Your task to perform on an android device: check battery use Image 0: 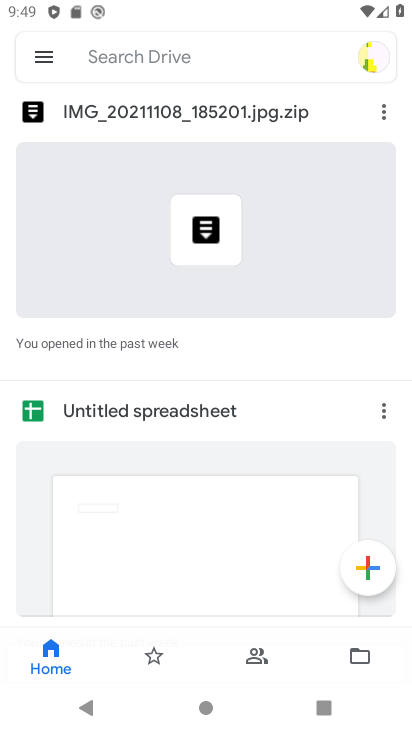
Step 0: press home button
Your task to perform on an android device: check battery use Image 1: 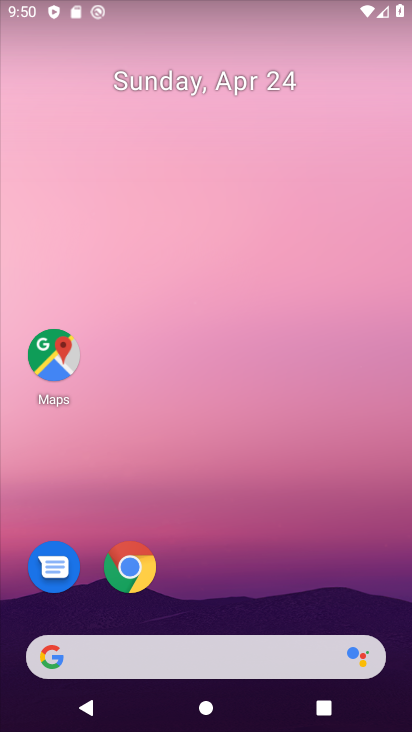
Step 1: drag from (41, 464) to (120, 328)
Your task to perform on an android device: check battery use Image 2: 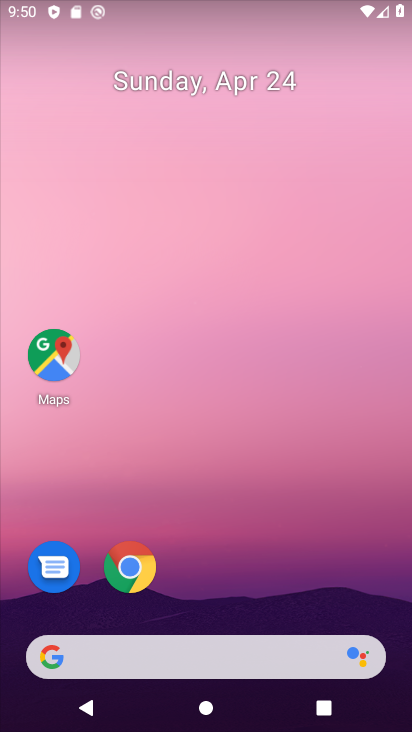
Step 2: drag from (84, 506) to (140, 388)
Your task to perform on an android device: check battery use Image 3: 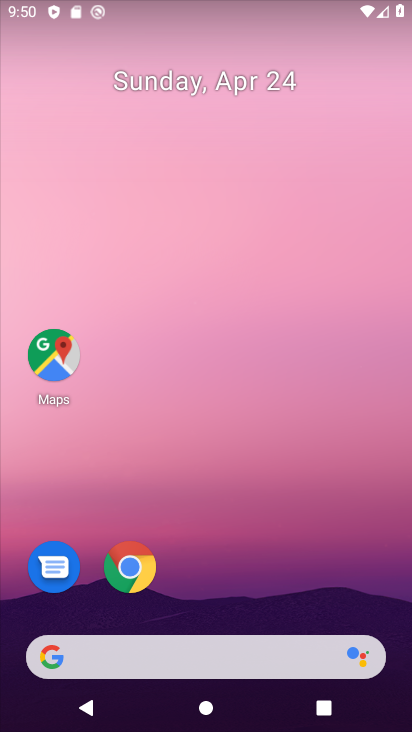
Step 3: drag from (98, 509) to (187, 324)
Your task to perform on an android device: check battery use Image 4: 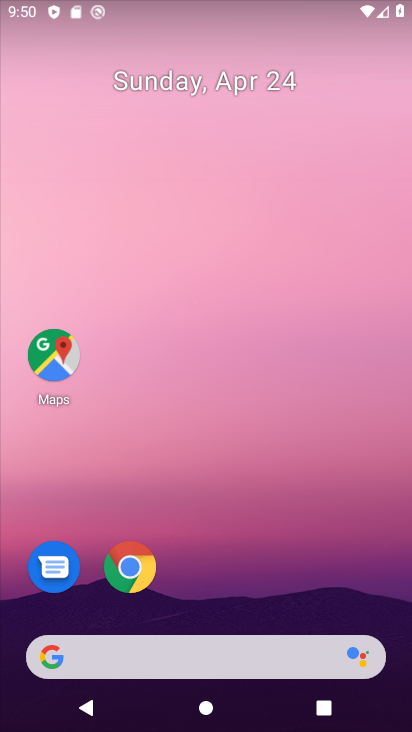
Step 4: drag from (14, 602) to (126, 401)
Your task to perform on an android device: check battery use Image 5: 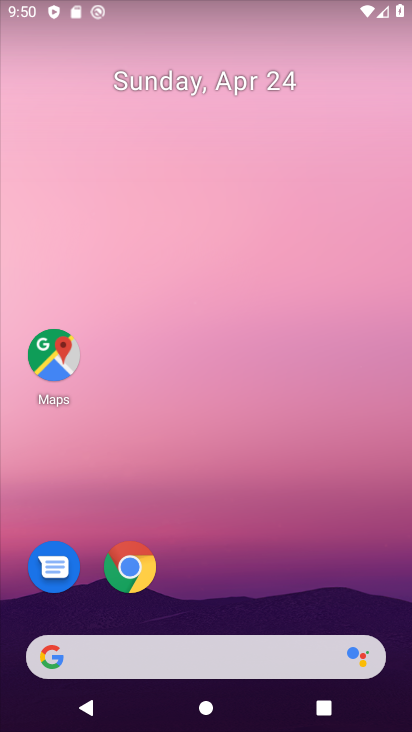
Step 5: drag from (17, 593) to (161, 334)
Your task to perform on an android device: check battery use Image 6: 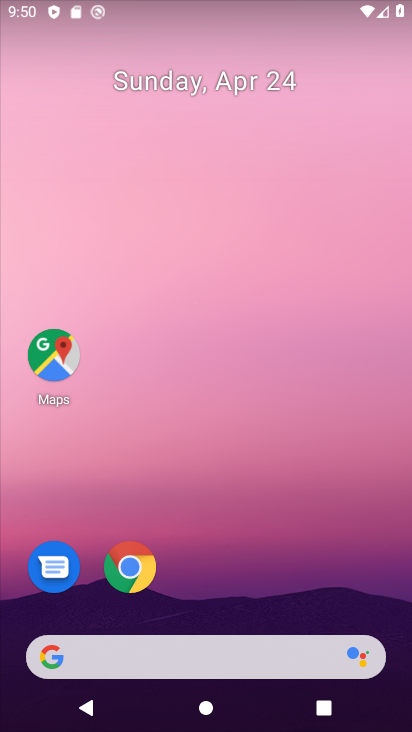
Step 6: drag from (114, 483) to (259, 186)
Your task to perform on an android device: check battery use Image 7: 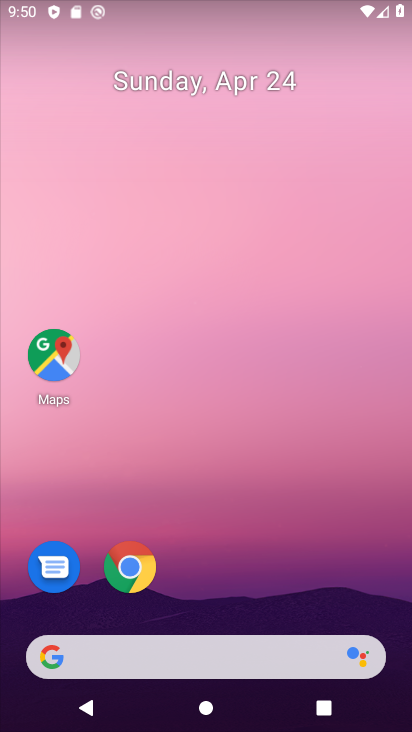
Step 7: drag from (37, 544) to (226, 146)
Your task to perform on an android device: check battery use Image 8: 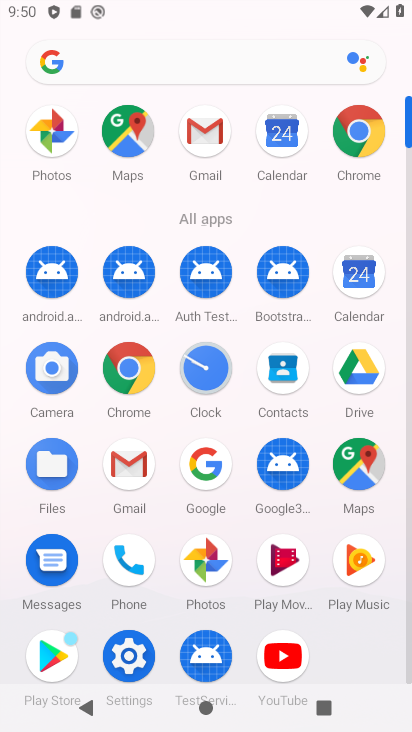
Step 8: click (133, 659)
Your task to perform on an android device: check battery use Image 9: 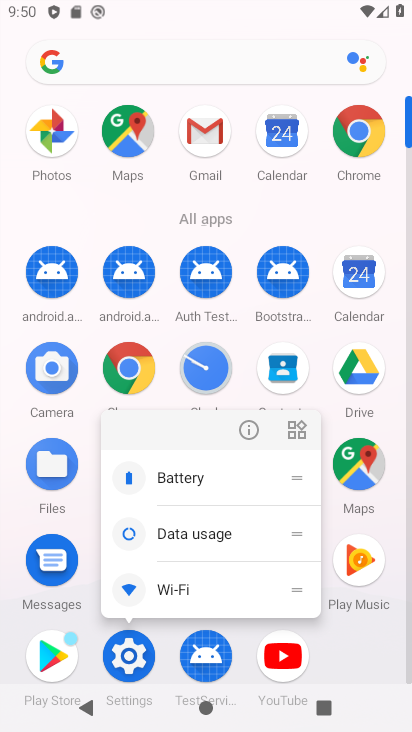
Step 9: click (207, 475)
Your task to perform on an android device: check battery use Image 10: 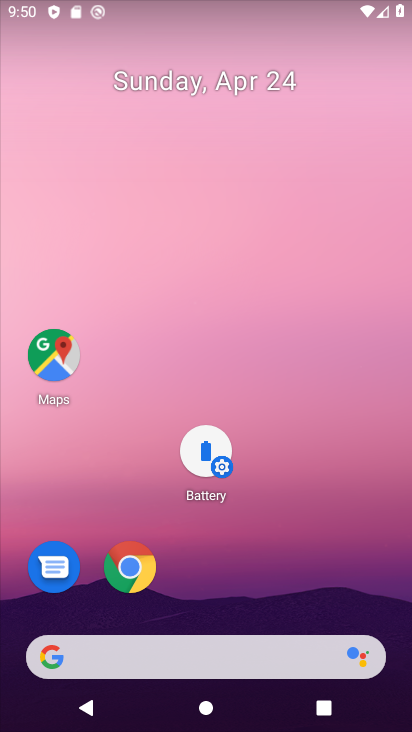
Step 10: click (215, 467)
Your task to perform on an android device: check battery use Image 11: 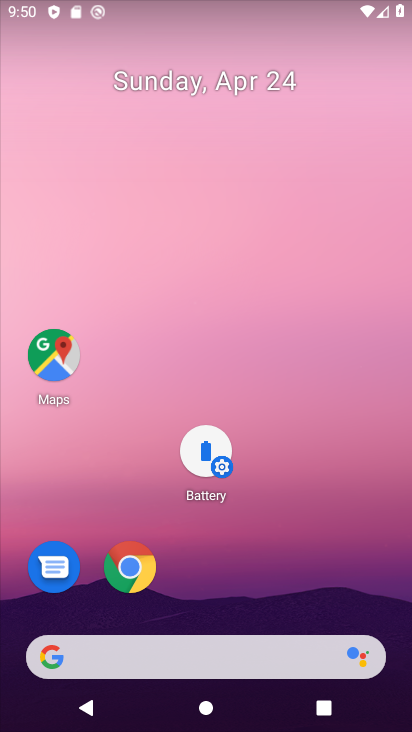
Step 11: click (203, 452)
Your task to perform on an android device: check battery use Image 12: 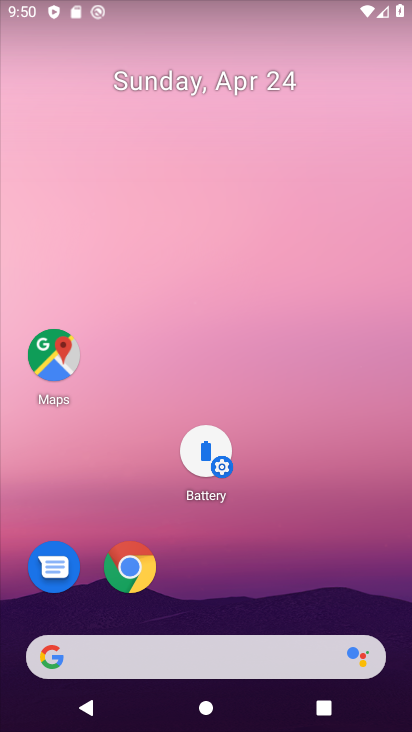
Step 12: click (202, 451)
Your task to perform on an android device: check battery use Image 13: 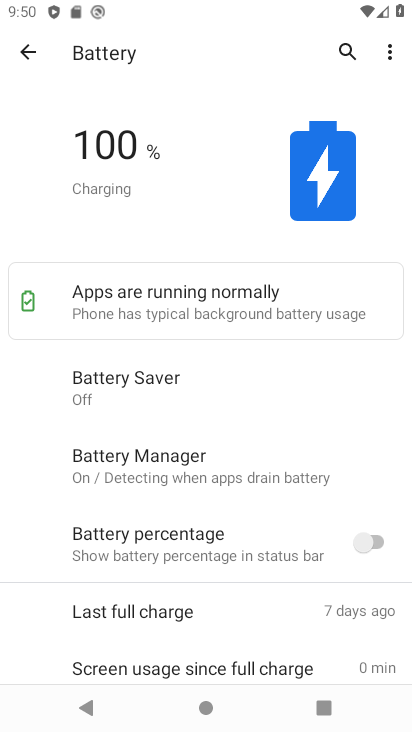
Step 13: click (238, 195)
Your task to perform on an android device: check battery use Image 14: 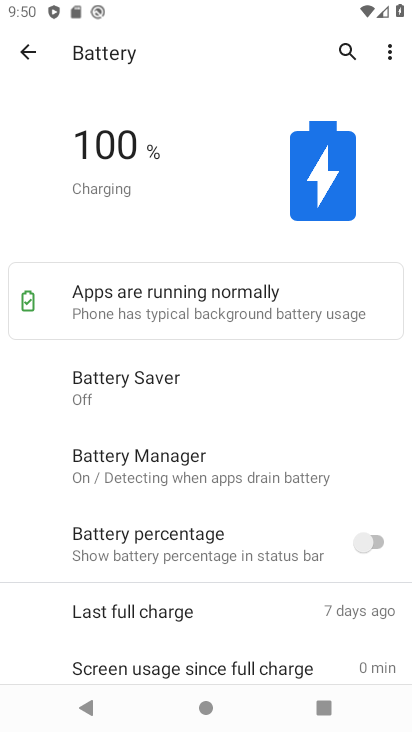
Step 14: task complete